Your task to perform on an android device: star an email in the gmail app Image 0: 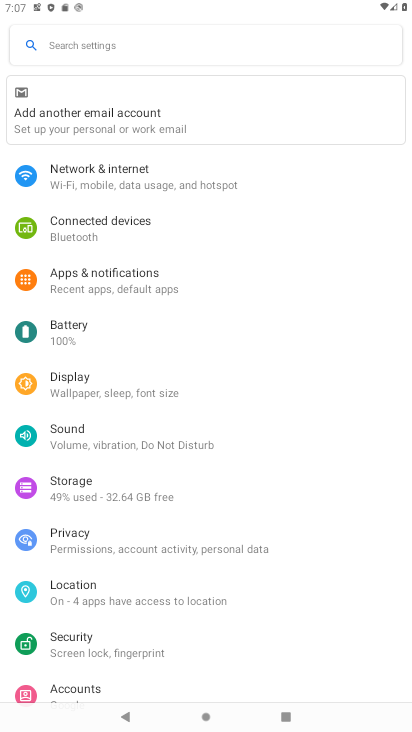
Step 0: press home button
Your task to perform on an android device: star an email in the gmail app Image 1: 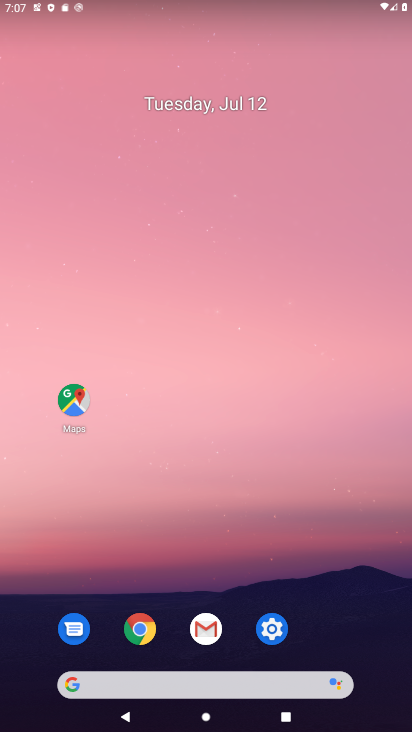
Step 1: click (218, 632)
Your task to perform on an android device: star an email in the gmail app Image 2: 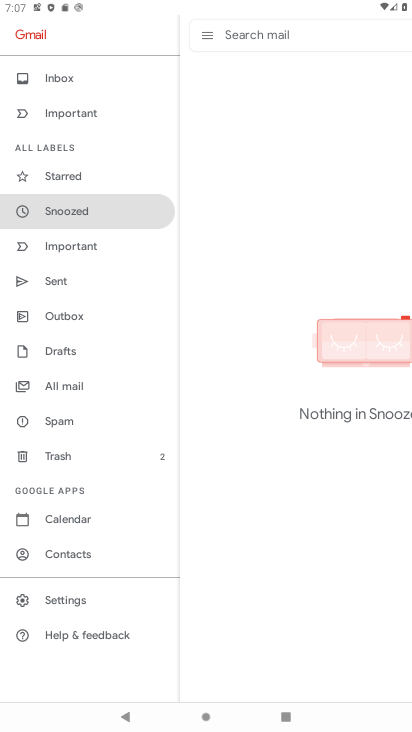
Step 2: click (62, 392)
Your task to perform on an android device: star an email in the gmail app Image 3: 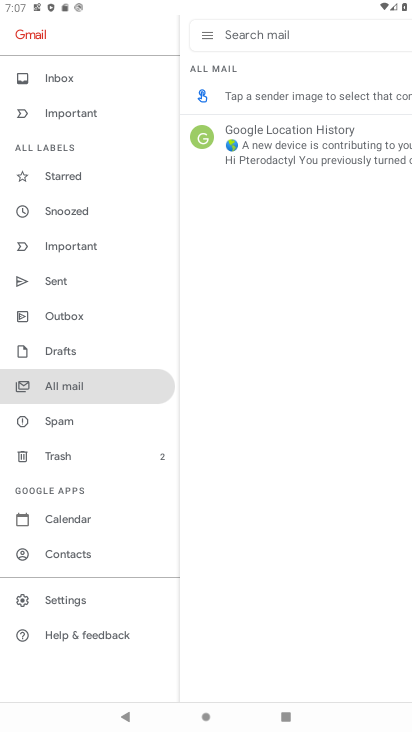
Step 3: click (304, 159)
Your task to perform on an android device: star an email in the gmail app Image 4: 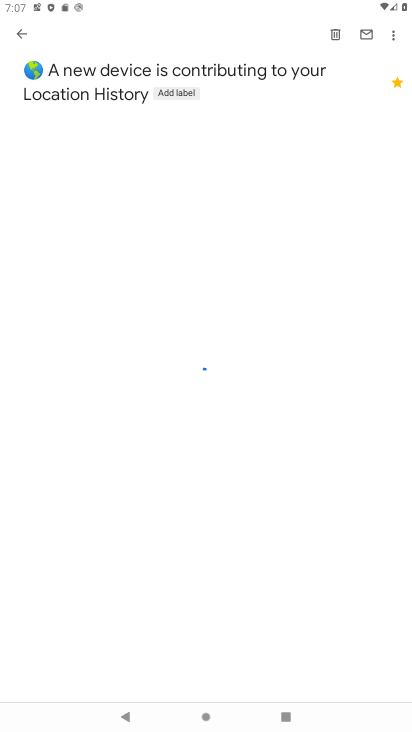
Step 4: click (398, 74)
Your task to perform on an android device: star an email in the gmail app Image 5: 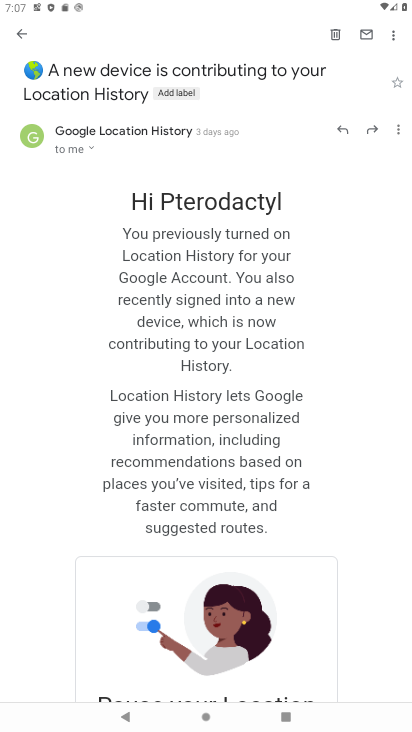
Step 5: click (397, 31)
Your task to perform on an android device: star an email in the gmail app Image 6: 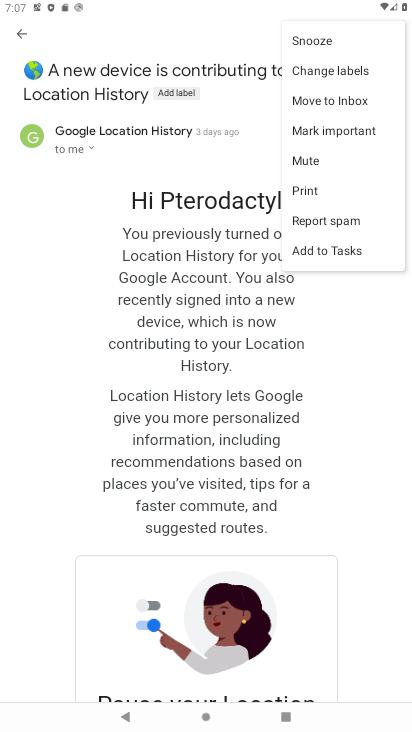
Step 6: click (204, 156)
Your task to perform on an android device: star an email in the gmail app Image 7: 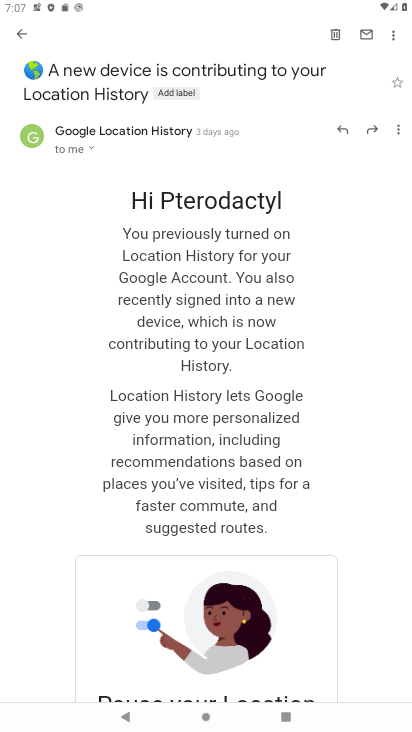
Step 7: click (401, 82)
Your task to perform on an android device: star an email in the gmail app Image 8: 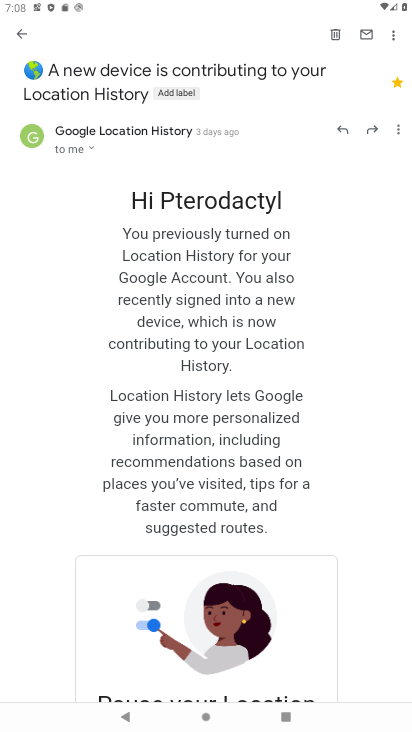
Step 8: task complete